Your task to perform on an android device: Open calendar and show me the first week of next month Image 0: 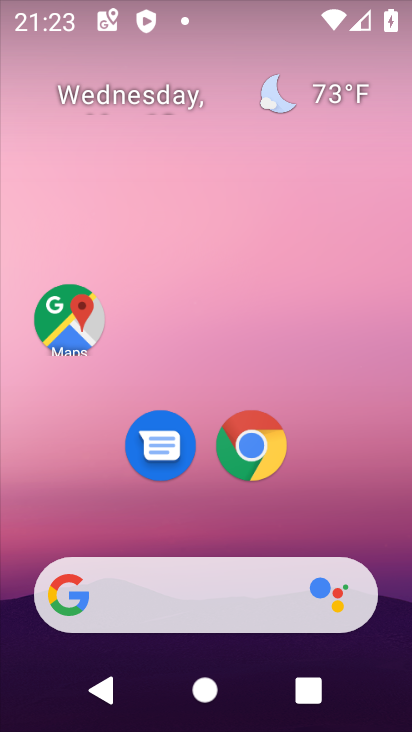
Step 0: drag from (302, 506) to (331, 202)
Your task to perform on an android device: Open calendar and show me the first week of next month Image 1: 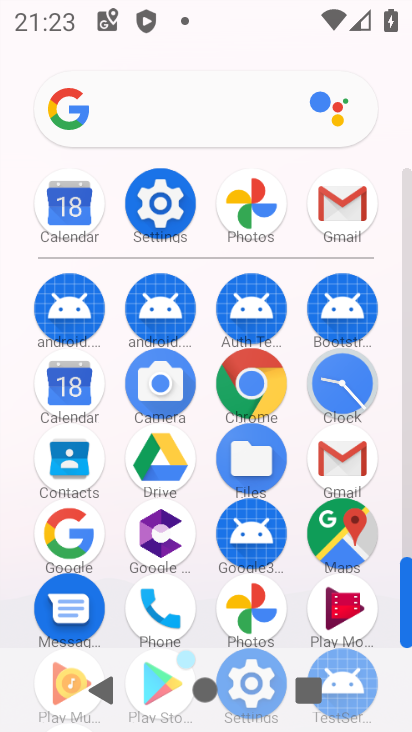
Step 1: click (55, 373)
Your task to perform on an android device: Open calendar and show me the first week of next month Image 2: 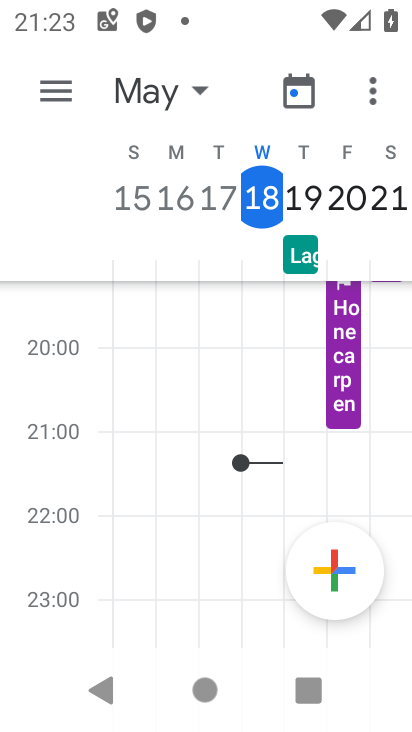
Step 2: click (64, 74)
Your task to perform on an android device: Open calendar and show me the first week of next month Image 3: 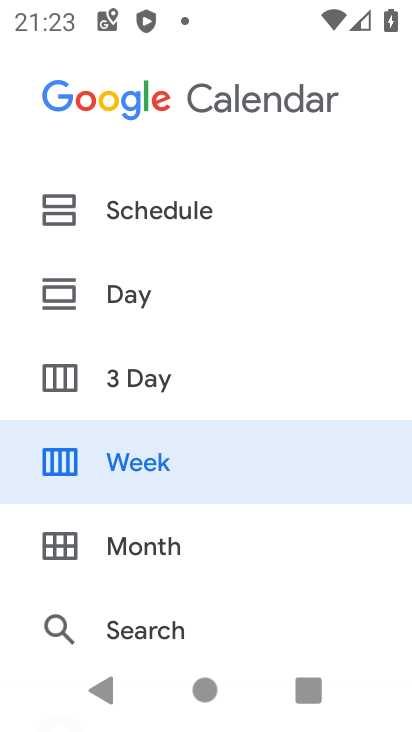
Step 3: click (157, 539)
Your task to perform on an android device: Open calendar and show me the first week of next month Image 4: 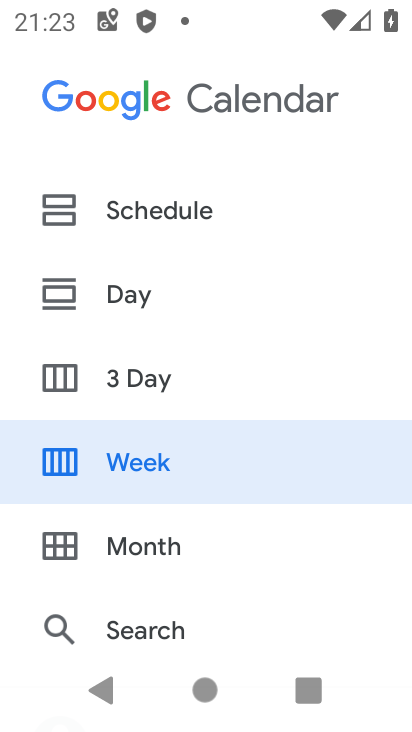
Step 4: click (174, 547)
Your task to perform on an android device: Open calendar and show me the first week of next month Image 5: 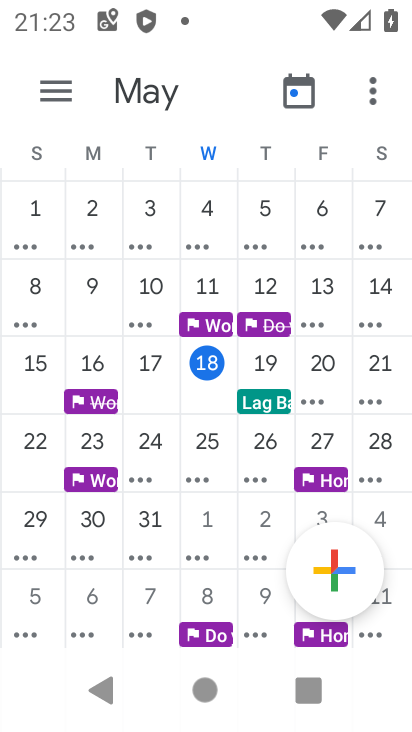
Step 5: task complete